Your task to perform on an android device: toggle location history Image 0: 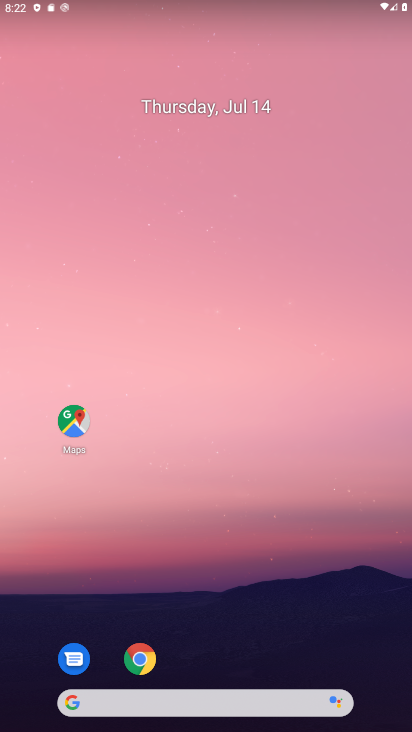
Step 0: drag from (248, 672) to (189, 212)
Your task to perform on an android device: toggle location history Image 1: 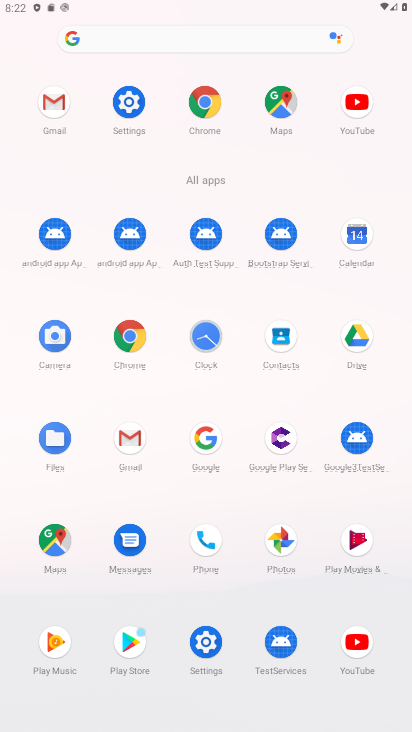
Step 1: click (125, 97)
Your task to perform on an android device: toggle location history Image 2: 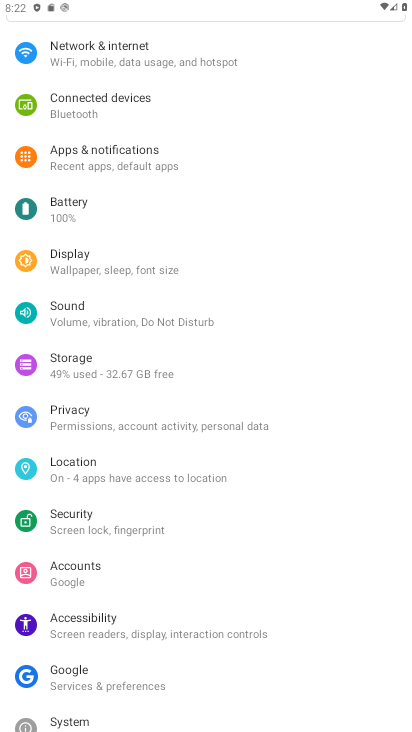
Step 2: click (118, 457)
Your task to perform on an android device: toggle location history Image 3: 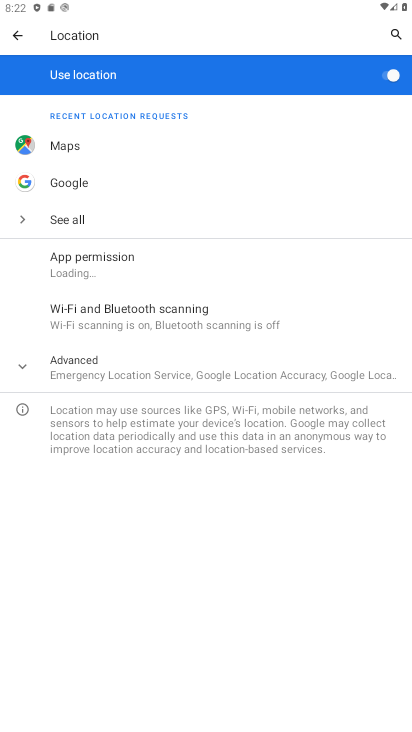
Step 3: click (147, 357)
Your task to perform on an android device: toggle location history Image 4: 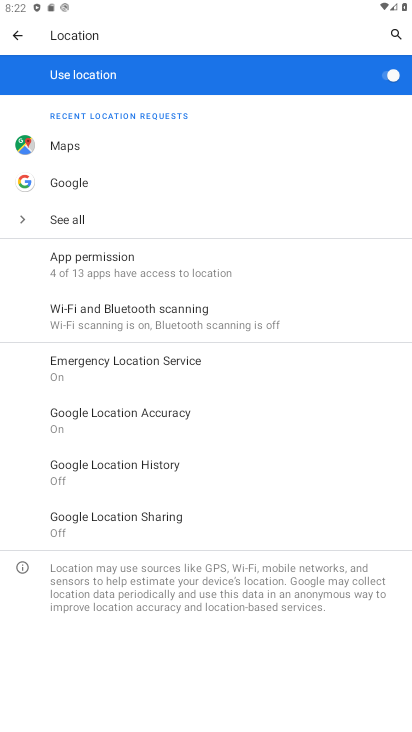
Step 4: click (118, 460)
Your task to perform on an android device: toggle location history Image 5: 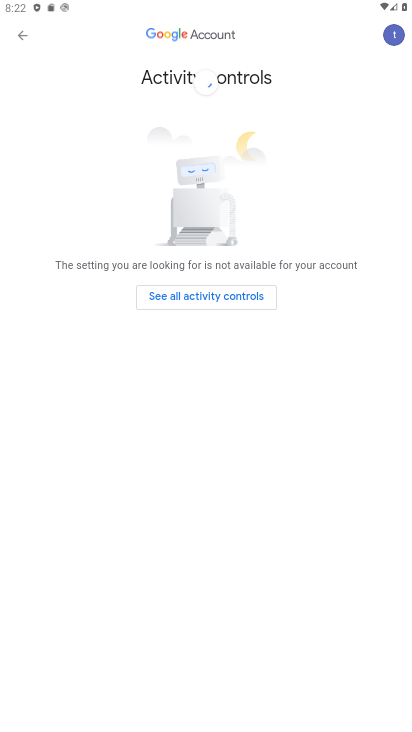
Step 5: click (226, 289)
Your task to perform on an android device: toggle location history Image 6: 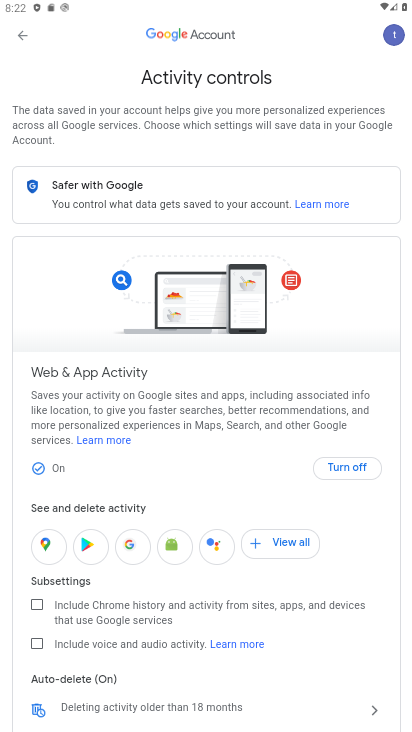
Step 6: click (343, 463)
Your task to perform on an android device: toggle location history Image 7: 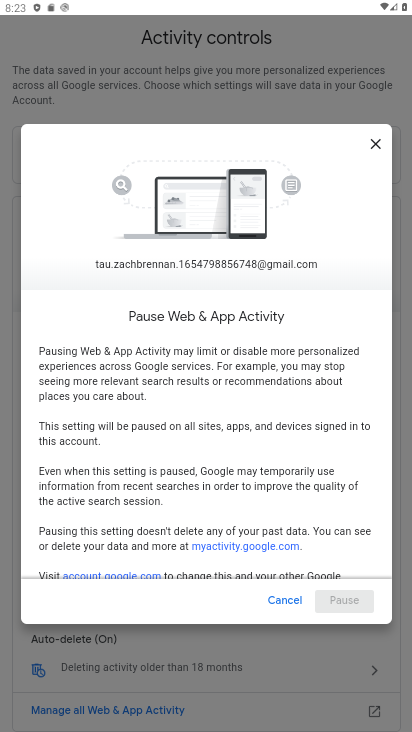
Step 7: drag from (302, 529) to (212, 136)
Your task to perform on an android device: toggle location history Image 8: 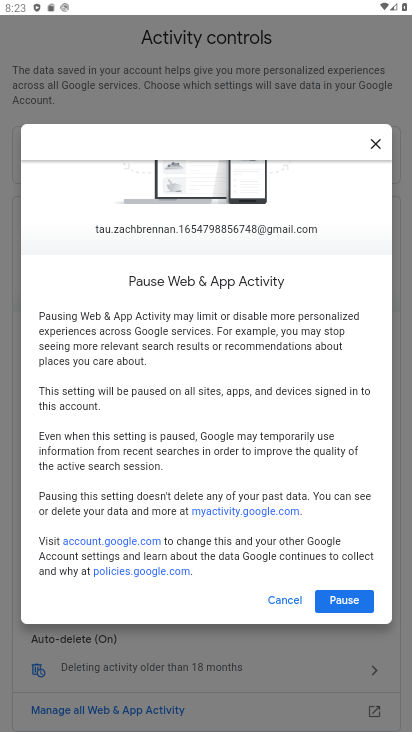
Step 8: click (351, 594)
Your task to perform on an android device: toggle location history Image 9: 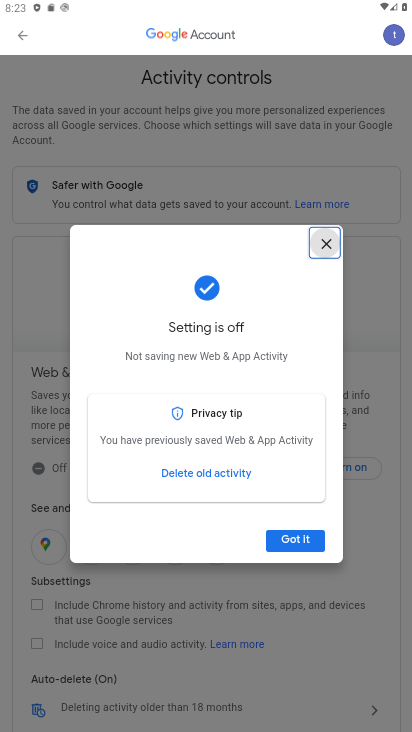
Step 9: click (313, 551)
Your task to perform on an android device: toggle location history Image 10: 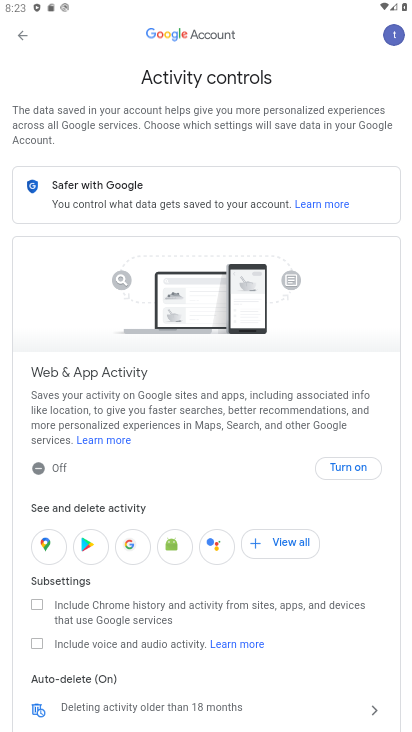
Step 10: task complete